Your task to perform on an android device: find snoozed emails in the gmail app Image 0: 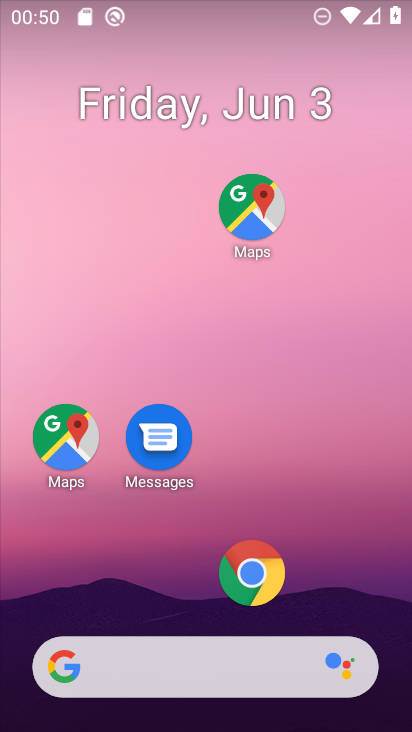
Step 0: drag from (347, 583) to (373, 76)
Your task to perform on an android device: find snoozed emails in the gmail app Image 1: 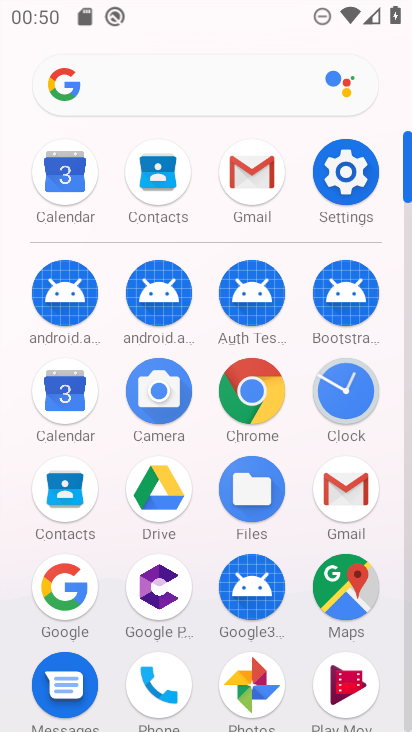
Step 1: click (261, 172)
Your task to perform on an android device: find snoozed emails in the gmail app Image 2: 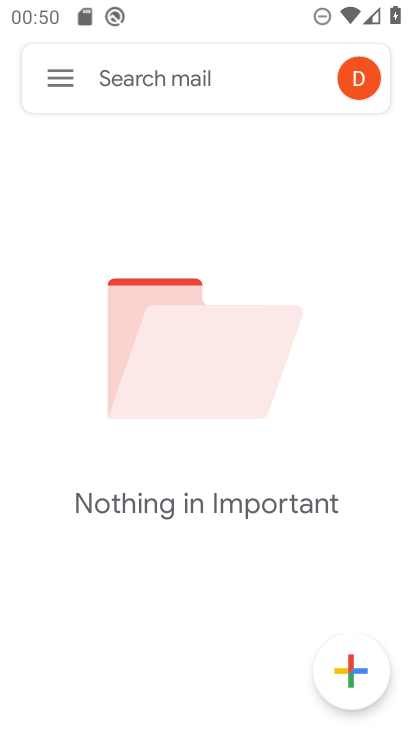
Step 2: click (64, 77)
Your task to perform on an android device: find snoozed emails in the gmail app Image 3: 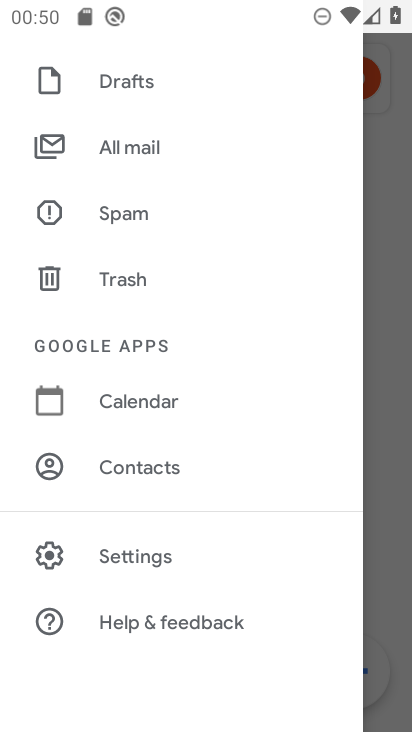
Step 3: drag from (163, 36) to (61, 228)
Your task to perform on an android device: find snoozed emails in the gmail app Image 4: 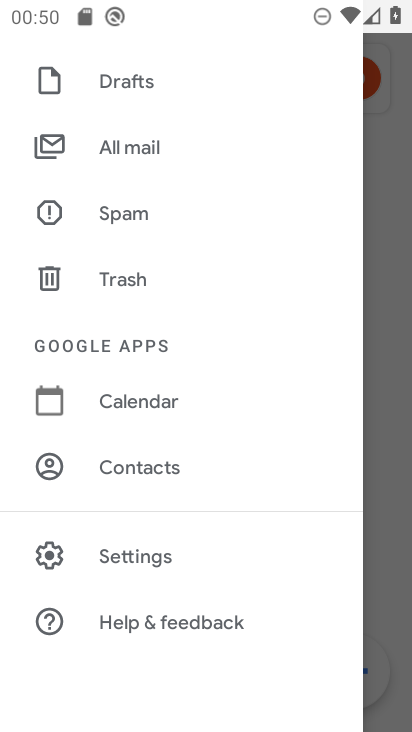
Step 4: drag from (145, 82) to (9, 492)
Your task to perform on an android device: find snoozed emails in the gmail app Image 5: 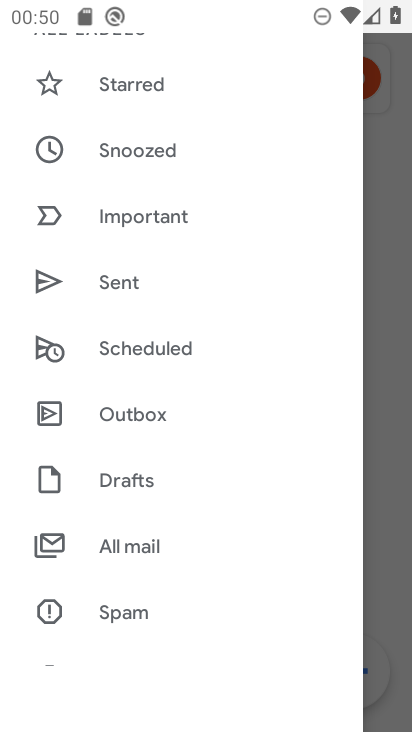
Step 5: click (138, 142)
Your task to perform on an android device: find snoozed emails in the gmail app Image 6: 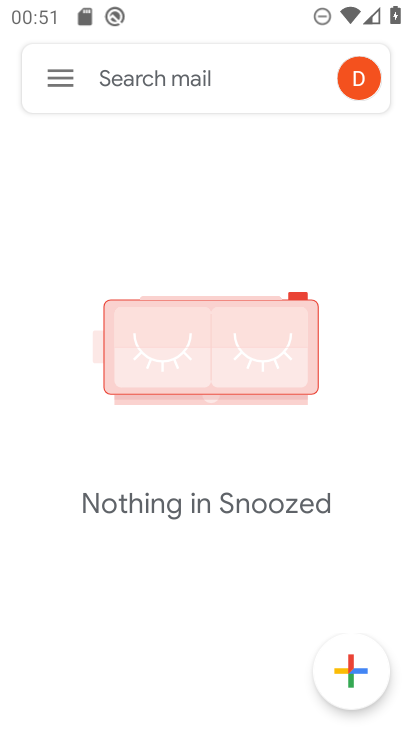
Step 6: task complete